Your task to perform on an android device: What's the weather today? Image 0: 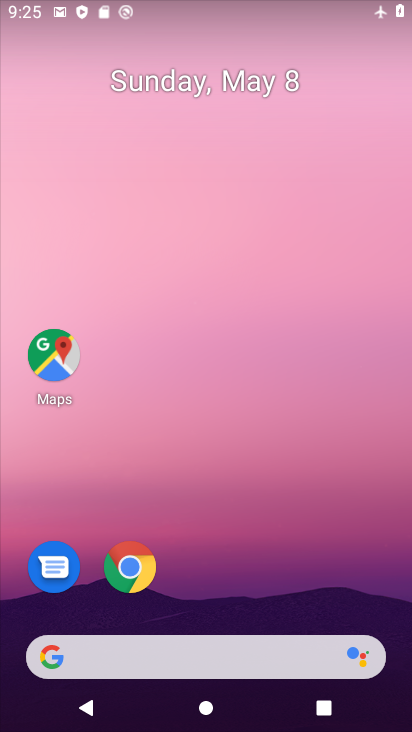
Step 0: drag from (239, 718) to (202, 258)
Your task to perform on an android device: What's the weather today? Image 1: 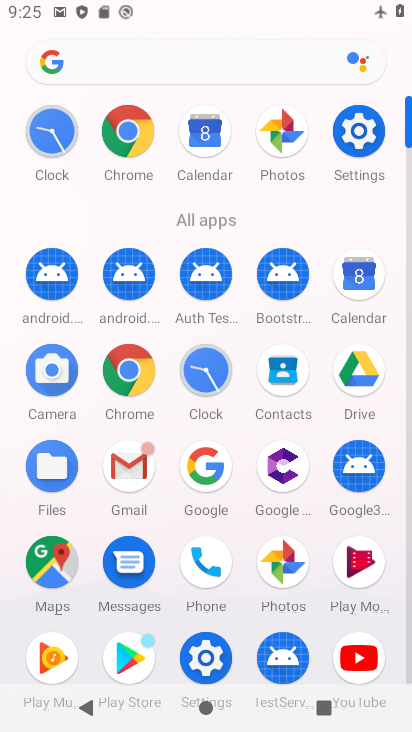
Step 1: click (201, 466)
Your task to perform on an android device: What's the weather today? Image 2: 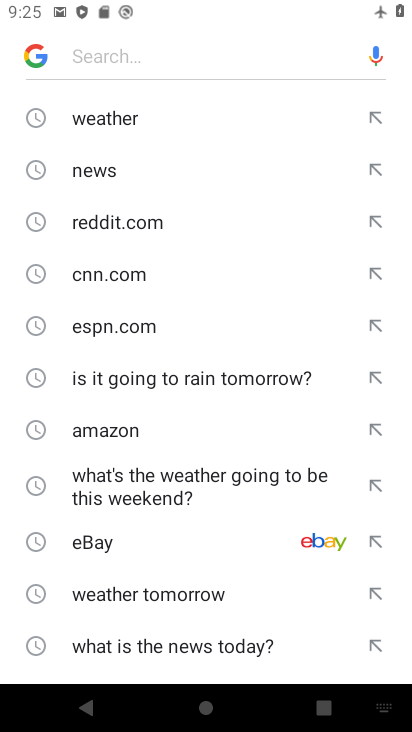
Step 2: click (102, 120)
Your task to perform on an android device: What's the weather today? Image 3: 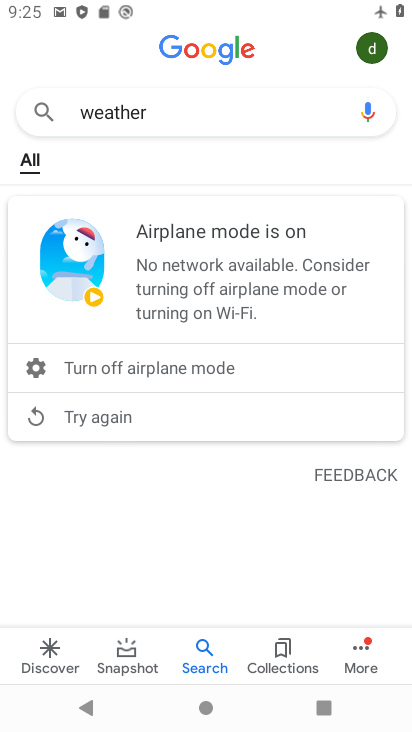
Step 3: task complete